Your task to perform on an android device: check battery use Image 0: 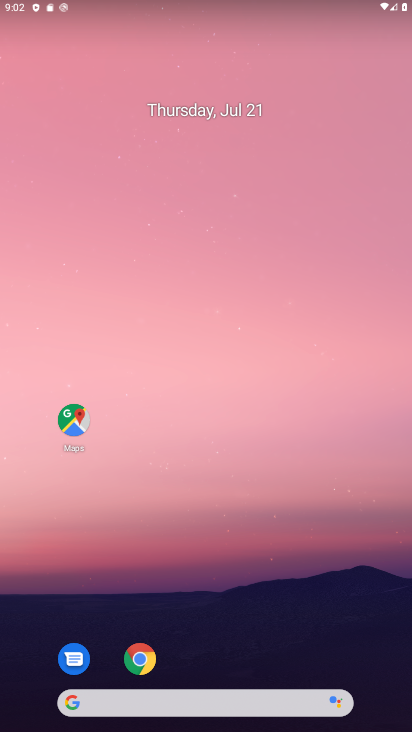
Step 0: click (152, 186)
Your task to perform on an android device: check battery use Image 1: 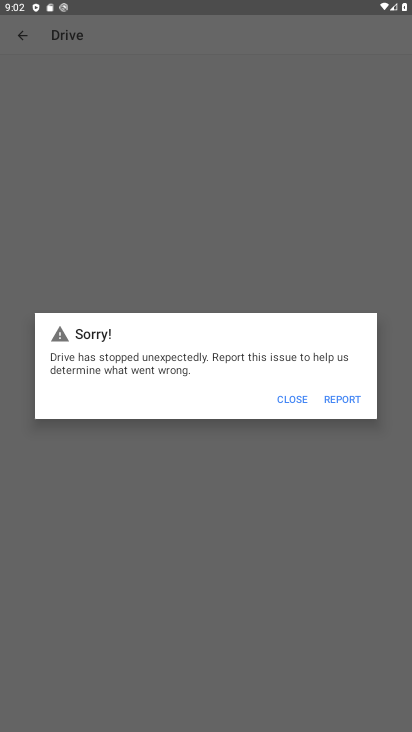
Step 1: press home button
Your task to perform on an android device: check battery use Image 2: 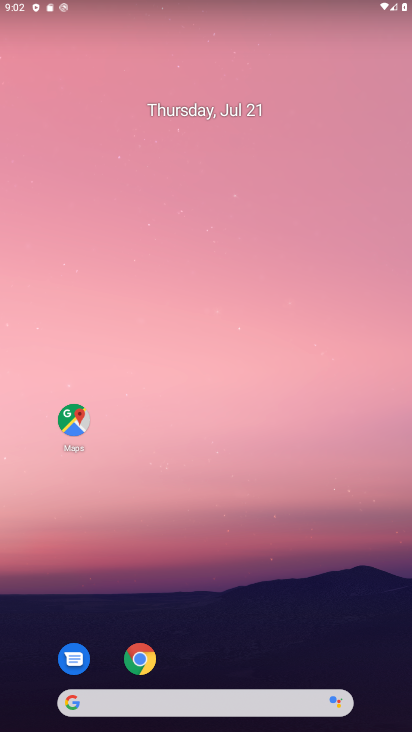
Step 2: drag from (181, 666) to (174, 0)
Your task to perform on an android device: check battery use Image 3: 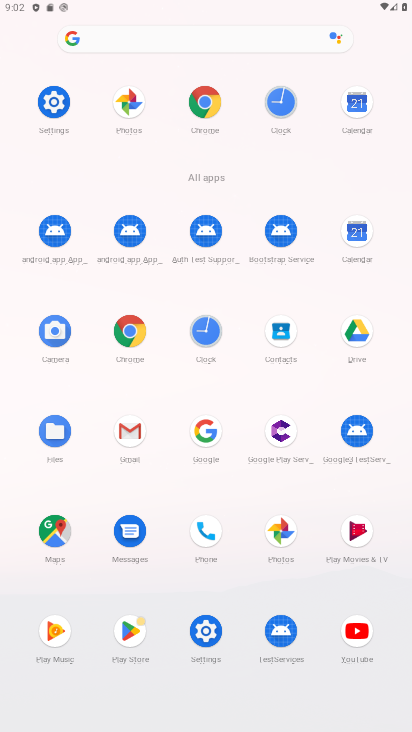
Step 3: click (26, 104)
Your task to perform on an android device: check battery use Image 4: 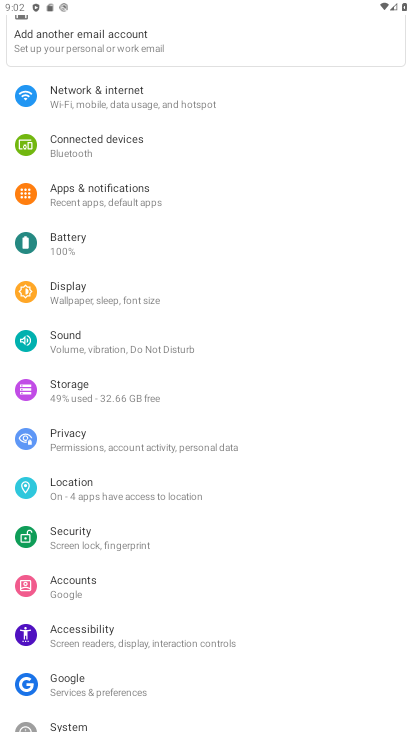
Step 4: drag from (109, 666) to (98, 383)
Your task to perform on an android device: check battery use Image 5: 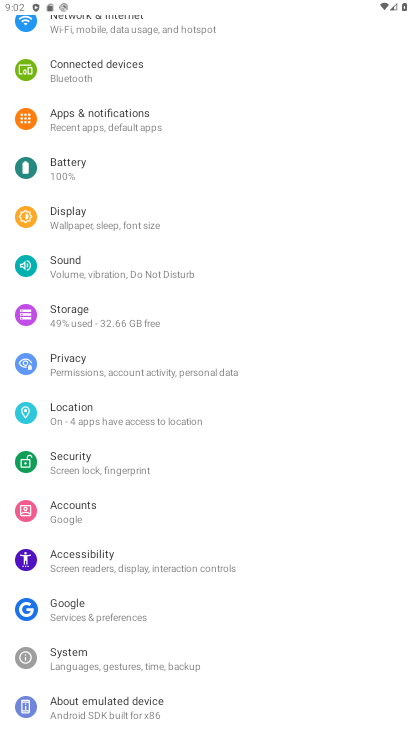
Step 5: click (69, 178)
Your task to perform on an android device: check battery use Image 6: 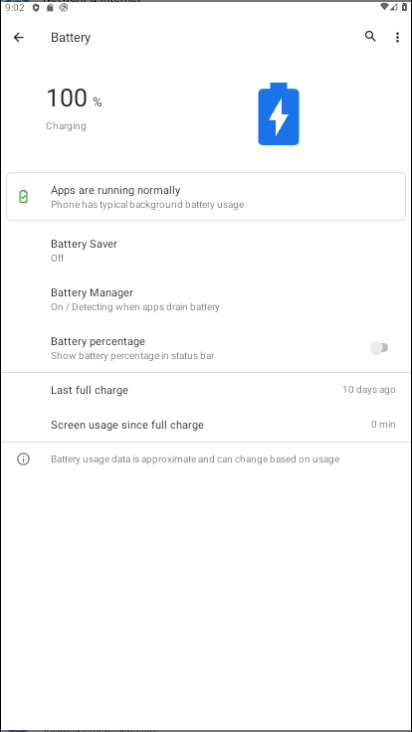
Step 6: task complete